Your task to perform on an android device: What is the news today? Image 0: 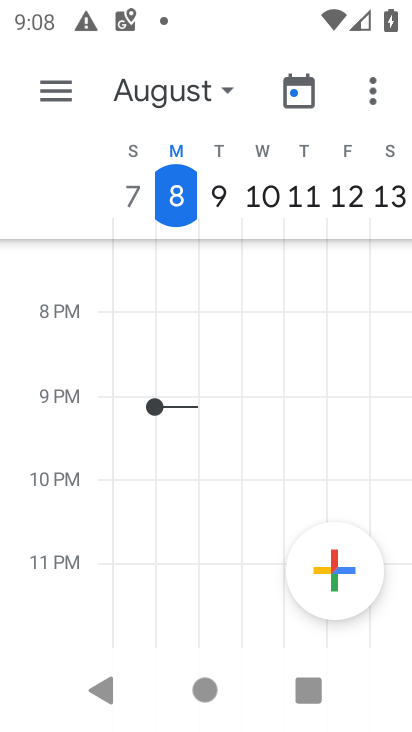
Step 0: press home button
Your task to perform on an android device: What is the news today? Image 1: 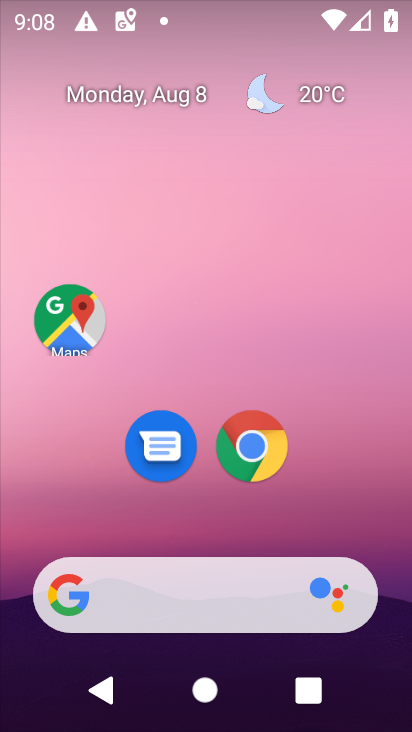
Step 1: task complete